Your task to perform on an android device: What's the weather going to be tomorrow? Image 0: 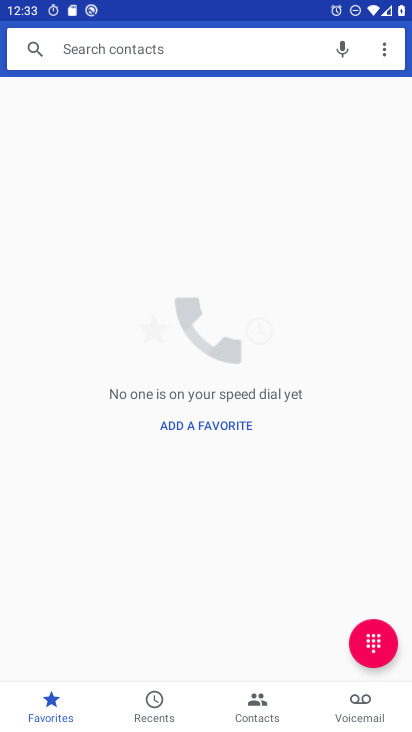
Step 0: press home button
Your task to perform on an android device: What's the weather going to be tomorrow? Image 1: 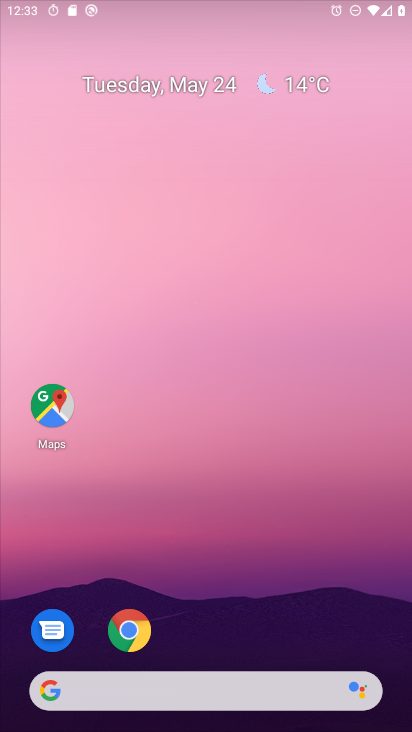
Step 1: drag from (349, 595) to (322, 115)
Your task to perform on an android device: What's the weather going to be tomorrow? Image 2: 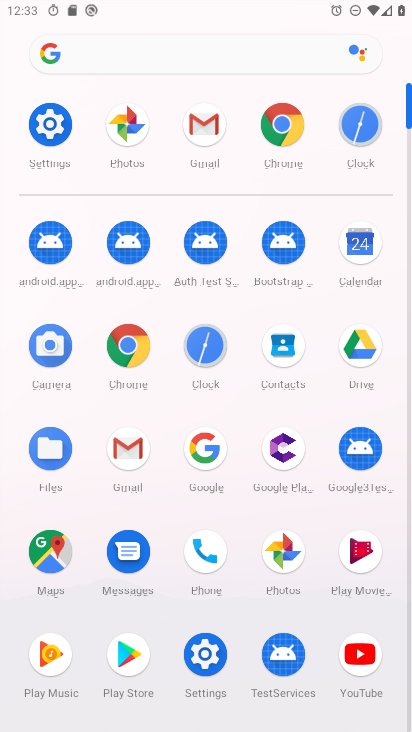
Step 2: click (130, 353)
Your task to perform on an android device: What's the weather going to be tomorrow? Image 3: 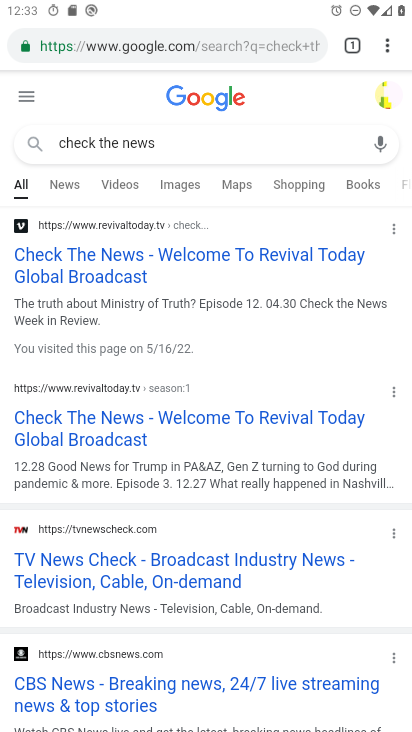
Step 3: click (173, 44)
Your task to perform on an android device: What's the weather going to be tomorrow? Image 4: 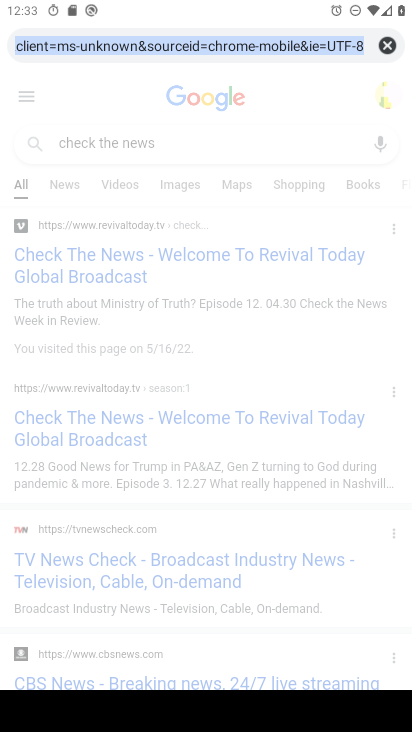
Step 4: click (383, 40)
Your task to perform on an android device: What's the weather going to be tomorrow? Image 5: 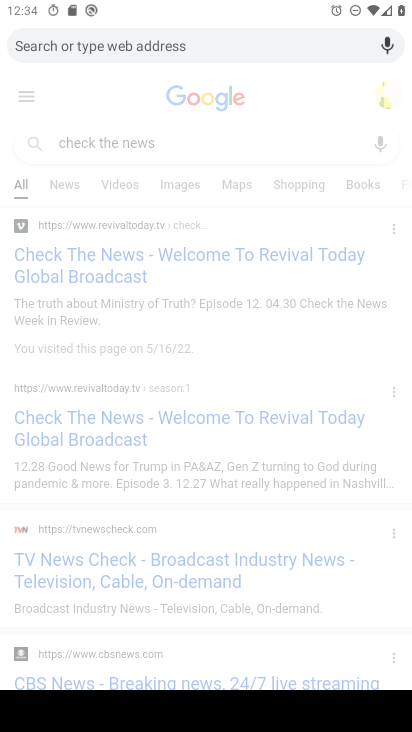
Step 5: type "what's the weather going to be tomorrow "
Your task to perform on an android device: What's the weather going to be tomorrow? Image 6: 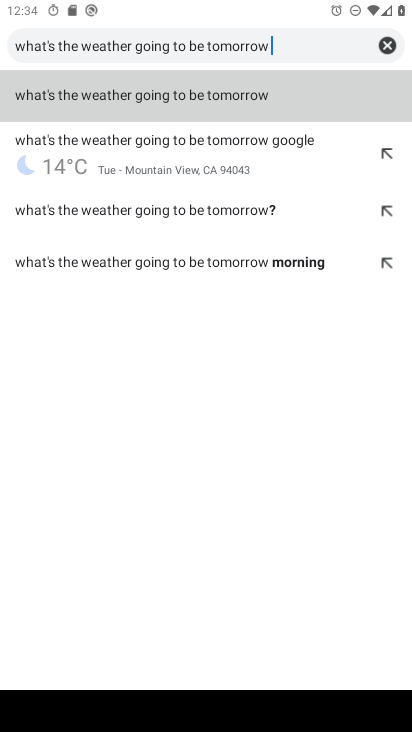
Step 6: click (155, 98)
Your task to perform on an android device: What's the weather going to be tomorrow? Image 7: 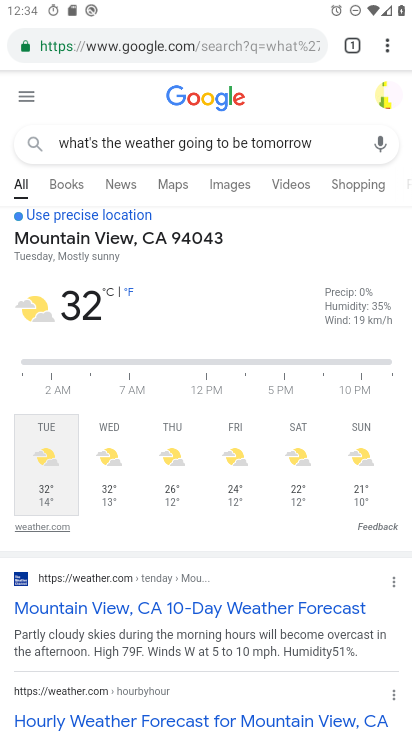
Step 7: task complete